Your task to perform on an android device: Go to Yahoo.com Image 0: 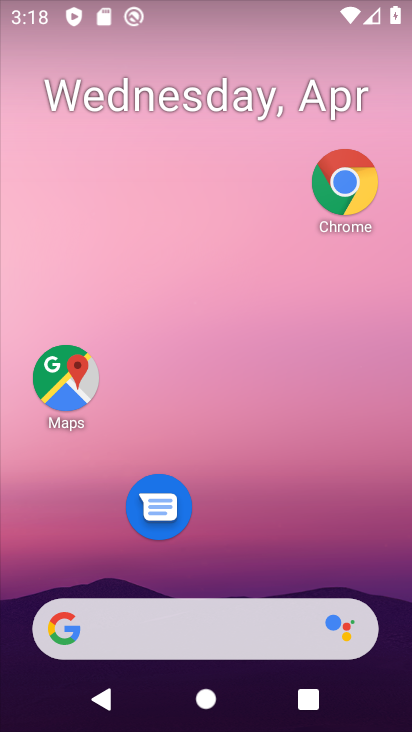
Step 0: click (357, 197)
Your task to perform on an android device: Go to Yahoo.com Image 1: 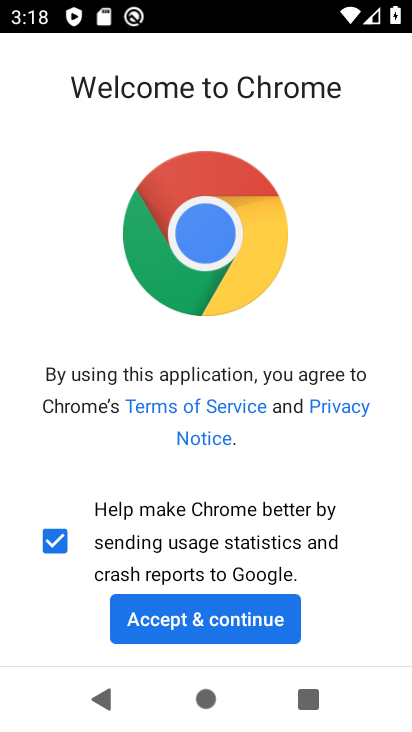
Step 1: click (243, 602)
Your task to perform on an android device: Go to Yahoo.com Image 2: 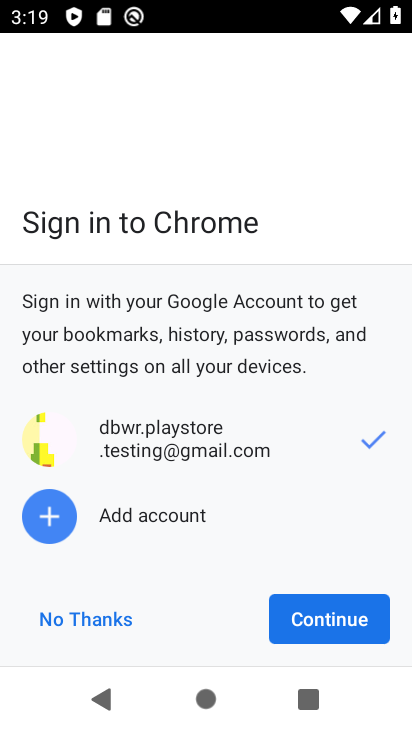
Step 2: click (332, 611)
Your task to perform on an android device: Go to Yahoo.com Image 3: 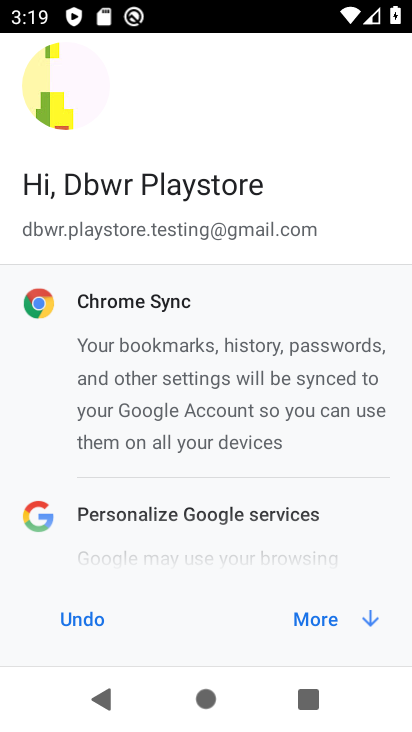
Step 3: click (311, 620)
Your task to perform on an android device: Go to Yahoo.com Image 4: 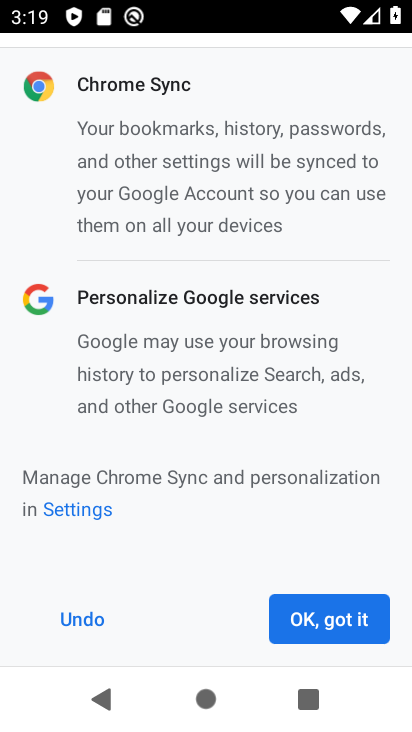
Step 4: click (332, 624)
Your task to perform on an android device: Go to Yahoo.com Image 5: 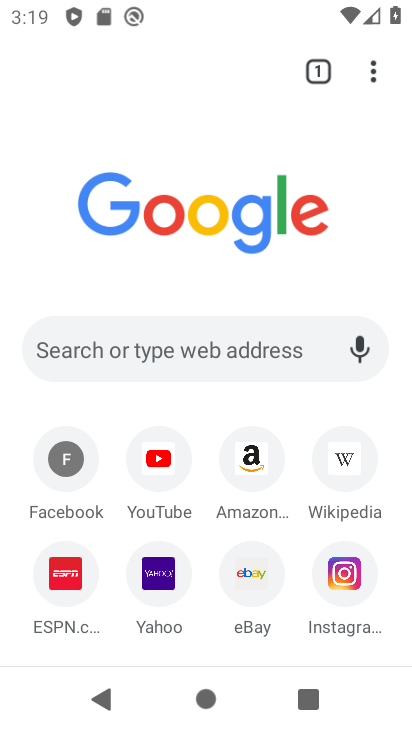
Step 5: click (166, 585)
Your task to perform on an android device: Go to Yahoo.com Image 6: 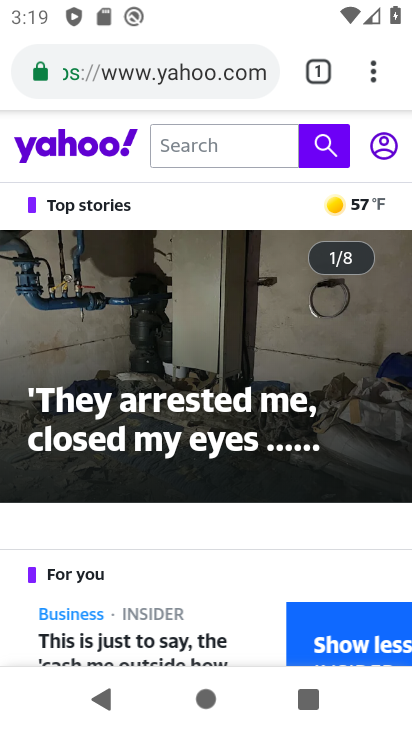
Step 6: task complete